Your task to perform on an android device: open a bookmark in the chrome app Image 0: 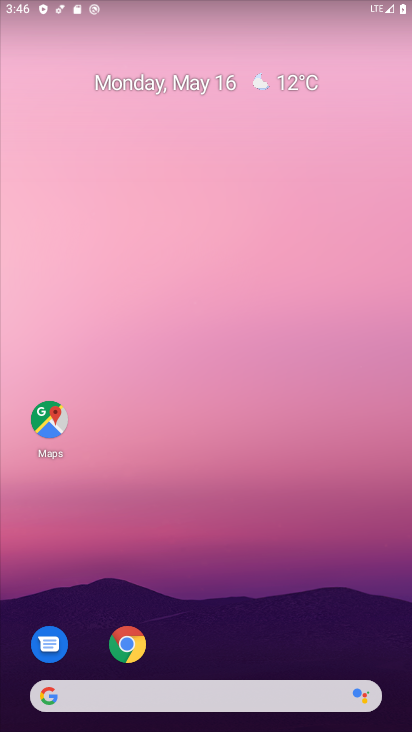
Step 0: click (119, 641)
Your task to perform on an android device: open a bookmark in the chrome app Image 1: 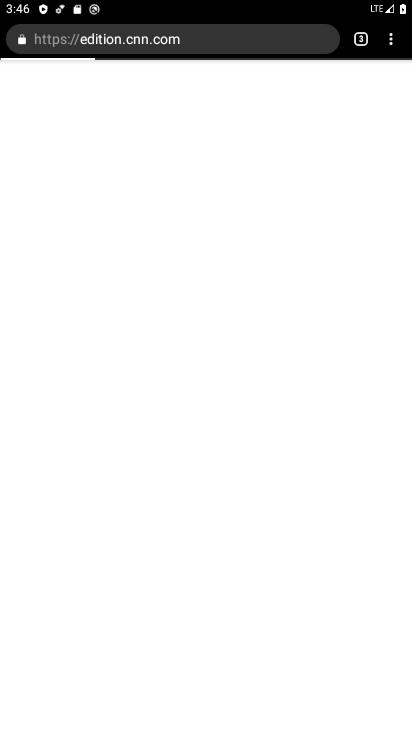
Step 1: drag from (386, 38) to (257, 201)
Your task to perform on an android device: open a bookmark in the chrome app Image 2: 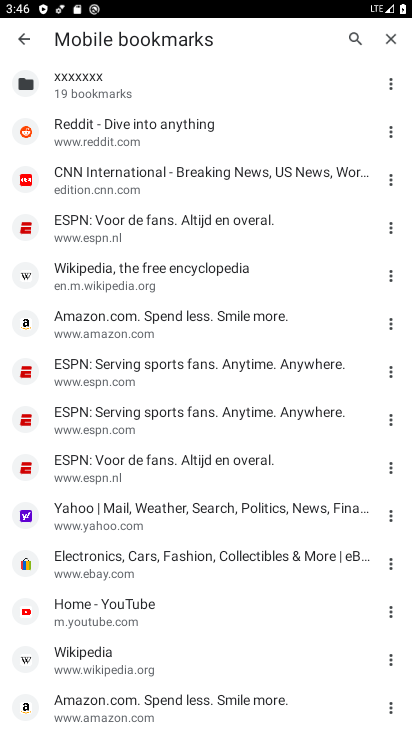
Step 2: click (176, 128)
Your task to perform on an android device: open a bookmark in the chrome app Image 3: 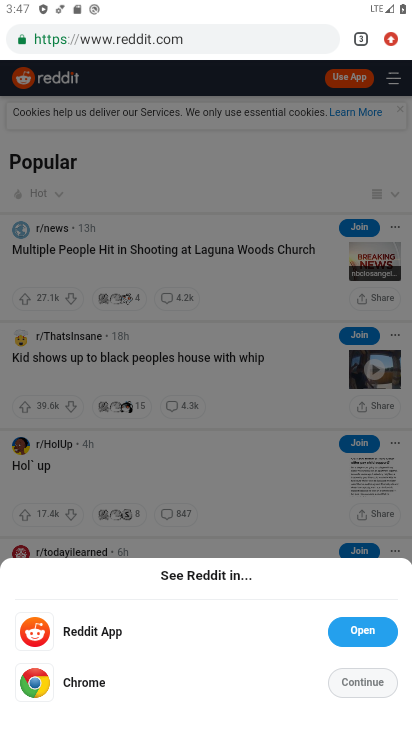
Step 3: task complete